Your task to perform on an android device: Go to CNN.com Image 0: 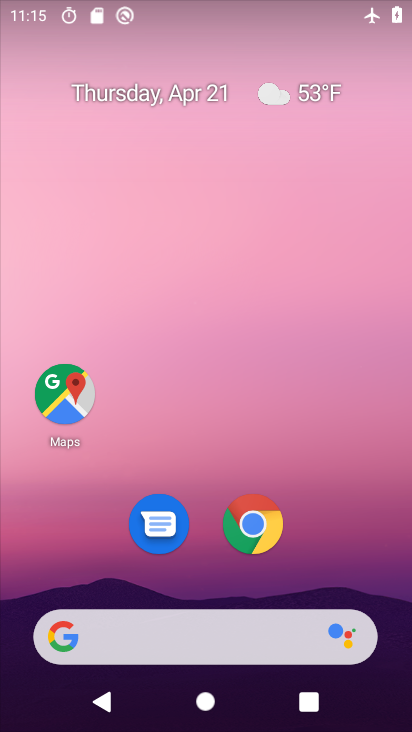
Step 0: click (281, 636)
Your task to perform on an android device: Go to CNN.com Image 1: 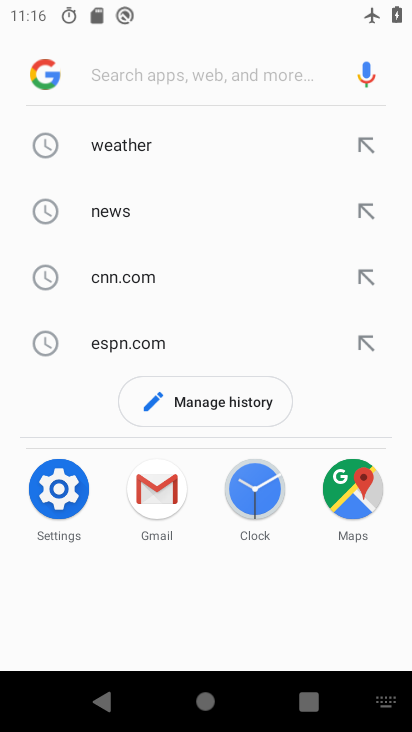
Step 1: click (146, 266)
Your task to perform on an android device: Go to CNN.com Image 2: 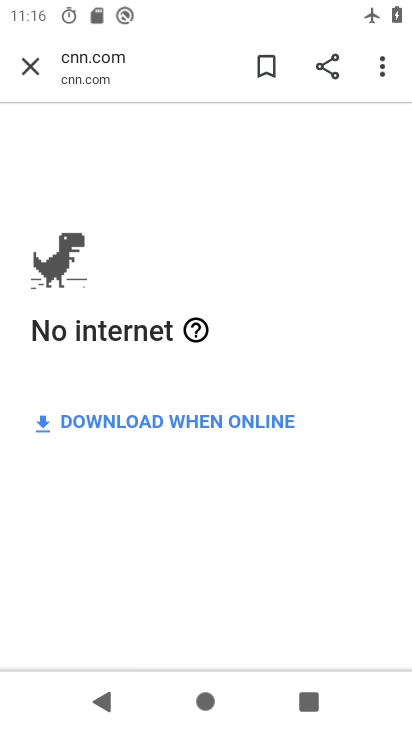
Step 2: task complete